Your task to perform on an android device: move a message to another label in the gmail app Image 0: 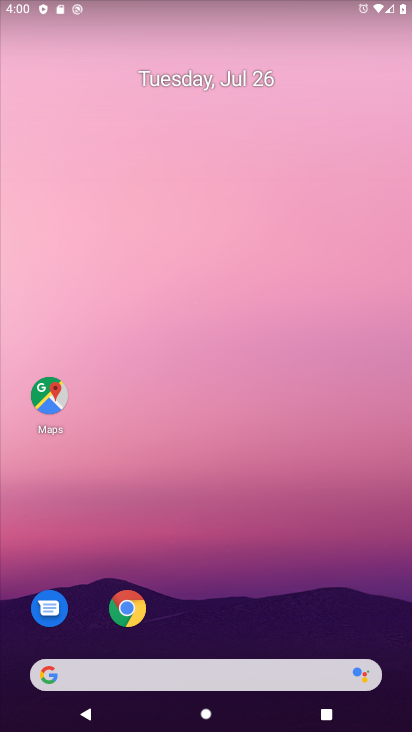
Step 0: drag from (383, 621) to (353, 74)
Your task to perform on an android device: move a message to another label in the gmail app Image 1: 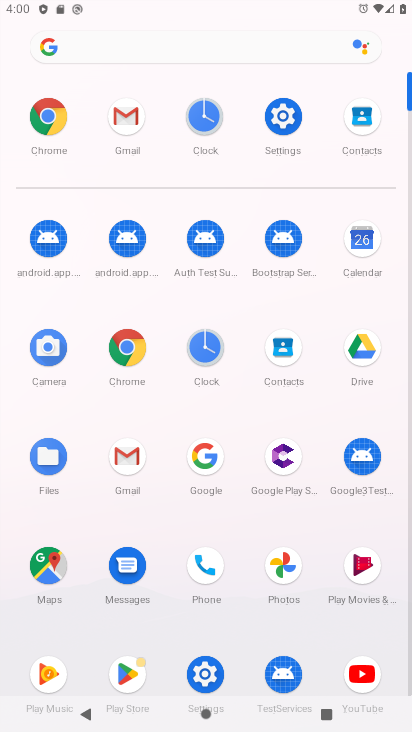
Step 1: click (126, 459)
Your task to perform on an android device: move a message to another label in the gmail app Image 2: 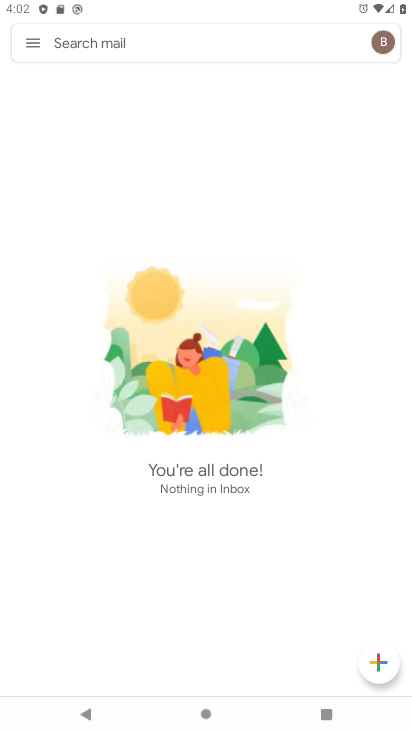
Step 2: task complete